Your task to perform on an android device: remove spam from my inbox in the gmail app Image 0: 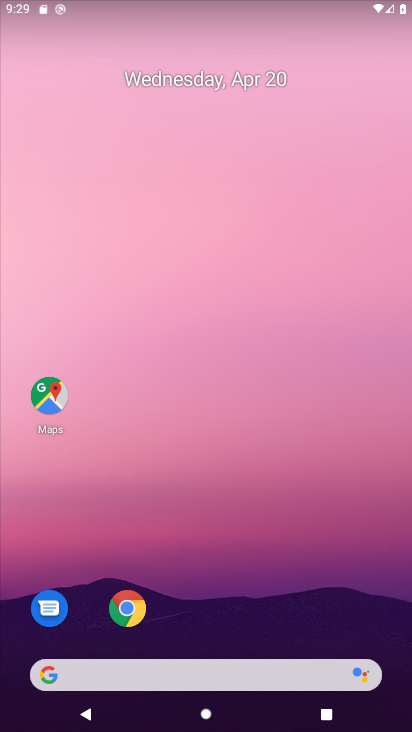
Step 0: drag from (233, 598) to (301, 24)
Your task to perform on an android device: remove spam from my inbox in the gmail app Image 1: 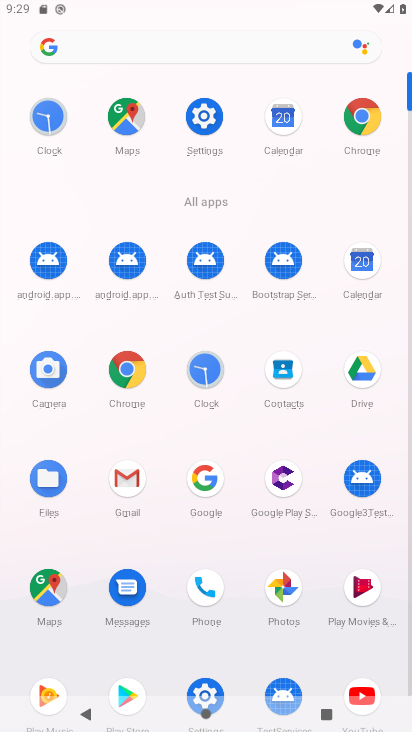
Step 1: click (131, 476)
Your task to perform on an android device: remove spam from my inbox in the gmail app Image 2: 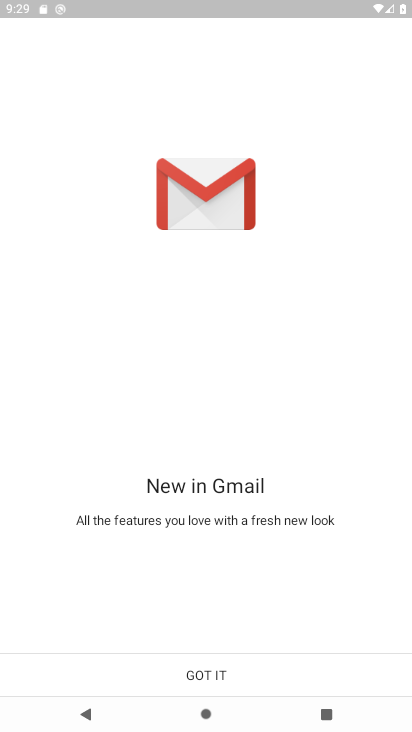
Step 2: click (252, 684)
Your task to perform on an android device: remove spam from my inbox in the gmail app Image 3: 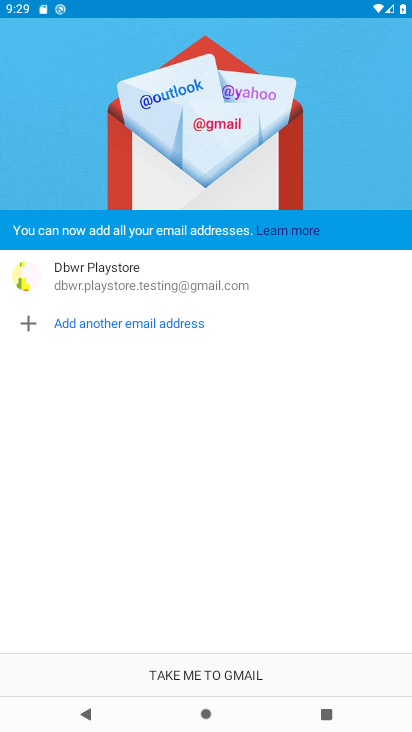
Step 3: click (250, 679)
Your task to perform on an android device: remove spam from my inbox in the gmail app Image 4: 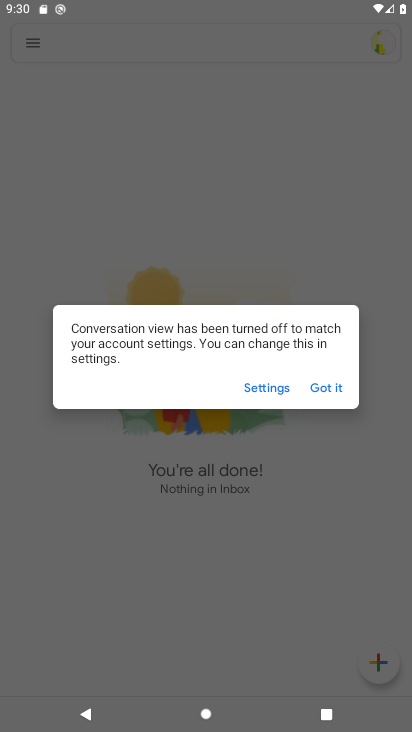
Step 4: click (324, 379)
Your task to perform on an android device: remove spam from my inbox in the gmail app Image 5: 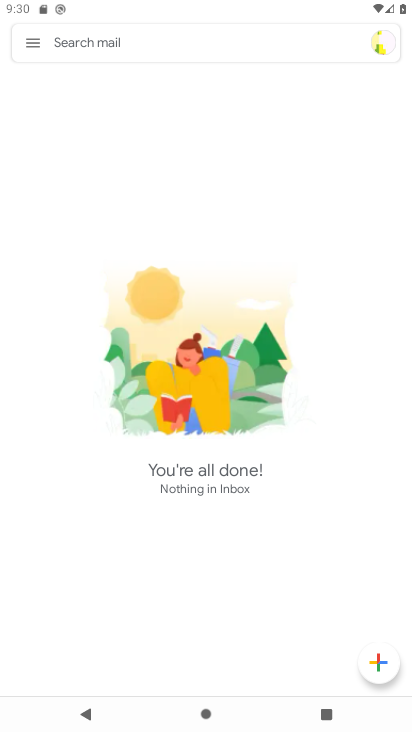
Step 5: click (40, 40)
Your task to perform on an android device: remove spam from my inbox in the gmail app Image 6: 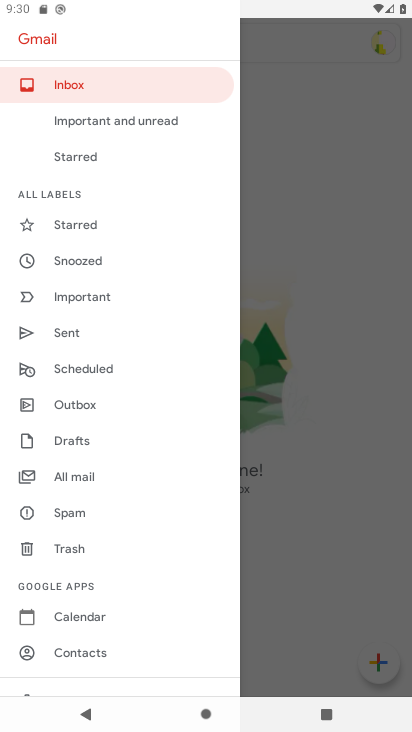
Step 6: drag from (81, 609) to (195, 128)
Your task to perform on an android device: remove spam from my inbox in the gmail app Image 7: 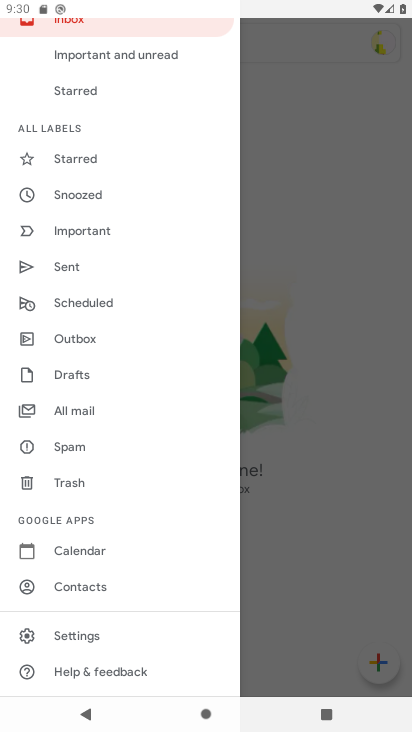
Step 7: click (70, 442)
Your task to perform on an android device: remove spam from my inbox in the gmail app Image 8: 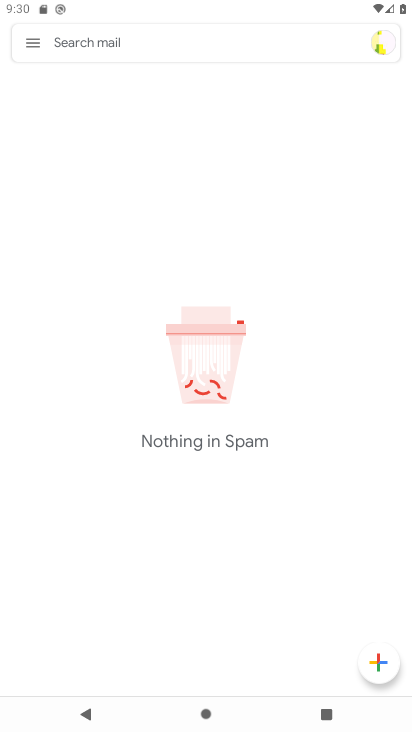
Step 8: task complete